Your task to perform on an android device: turn off notifications settings in the gmail app Image 0: 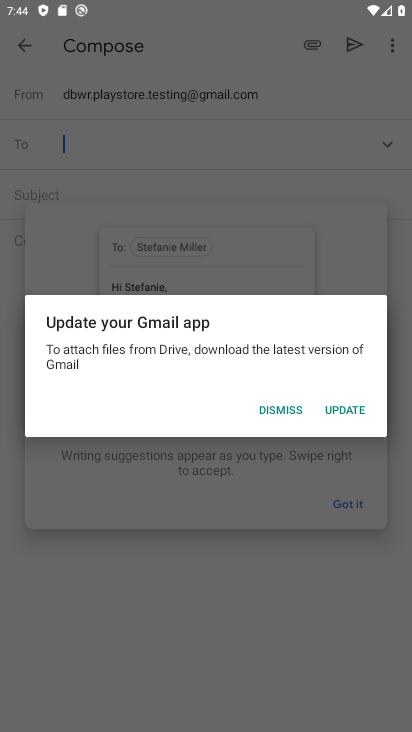
Step 0: click (273, 406)
Your task to perform on an android device: turn off notifications settings in the gmail app Image 1: 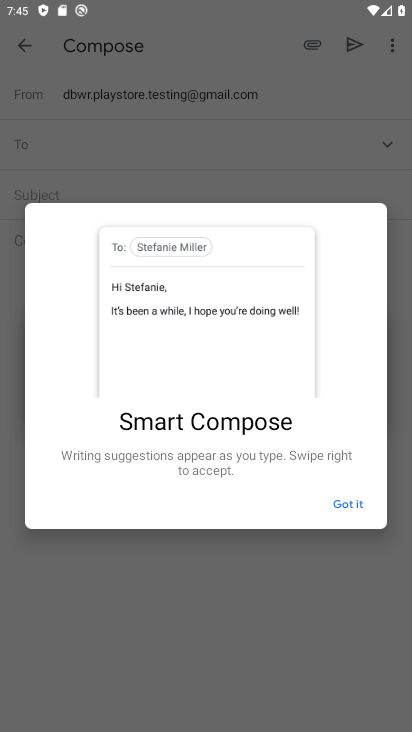
Step 1: click (353, 499)
Your task to perform on an android device: turn off notifications settings in the gmail app Image 2: 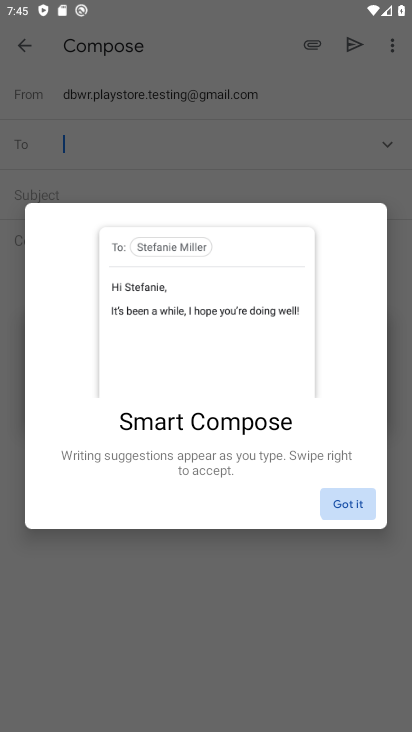
Step 2: click (354, 499)
Your task to perform on an android device: turn off notifications settings in the gmail app Image 3: 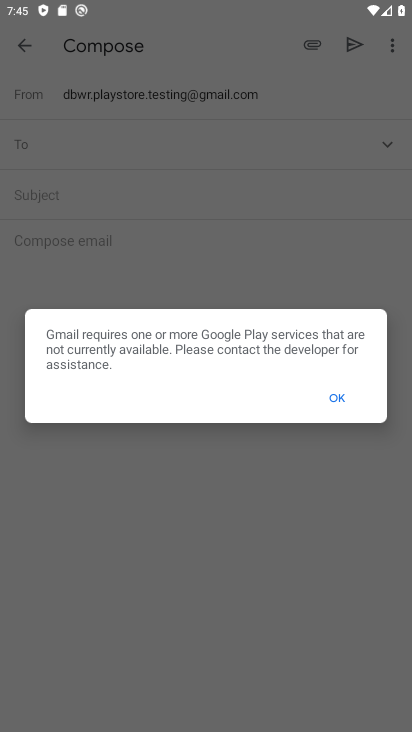
Step 3: click (364, 522)
Your task to perform on an android device: turn off notifications settings in the gmail app Image 4: 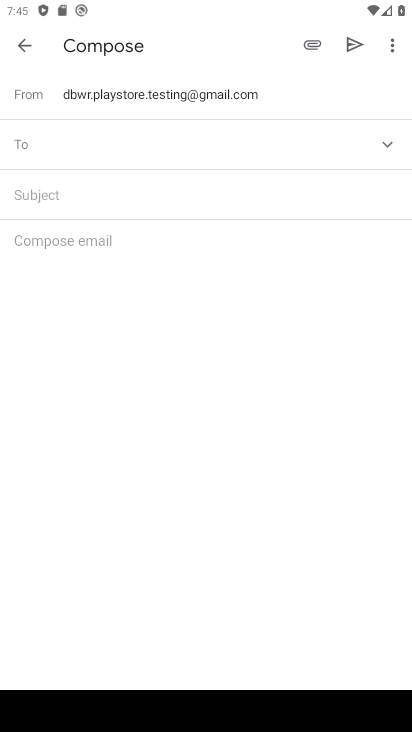
Step 4: click (29, 40)
Your task to perform on an android device: turn off notifications settings in the gmail app Image 5: 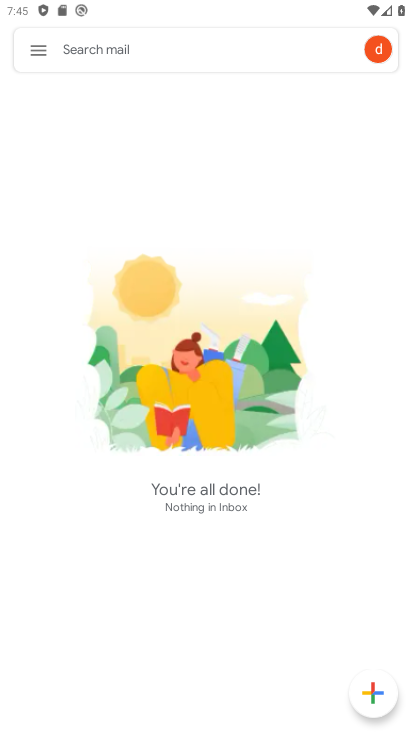
Step 5: click (40, 46)
Your task to perform on an android device: turn off notifications settings in the gmail app Image 6: 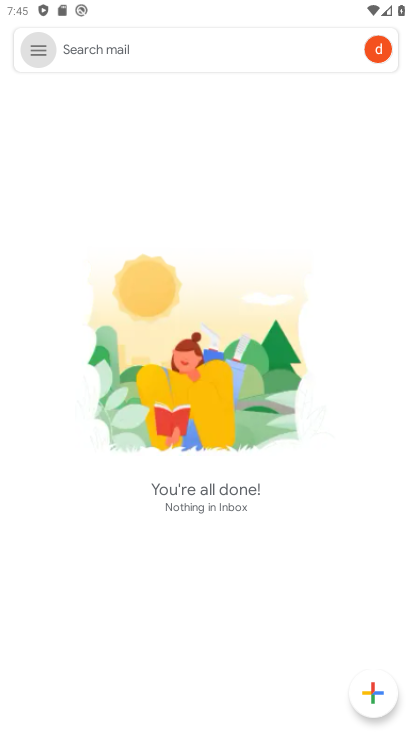
Step 6: click (38, 49)
Your task to perform on an android device: turn off notifications settings in the gmail app Image 7: 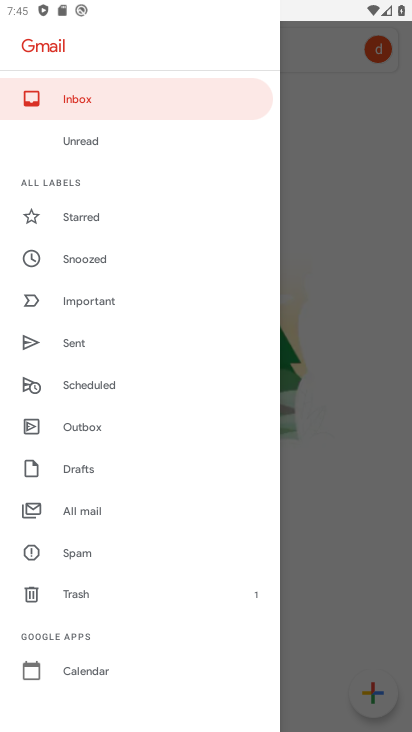
Step 7: drag from (90, 584) to (86, 81)
Your task to perform on an android device: turn off notifications settings in the gmail app Image 8: 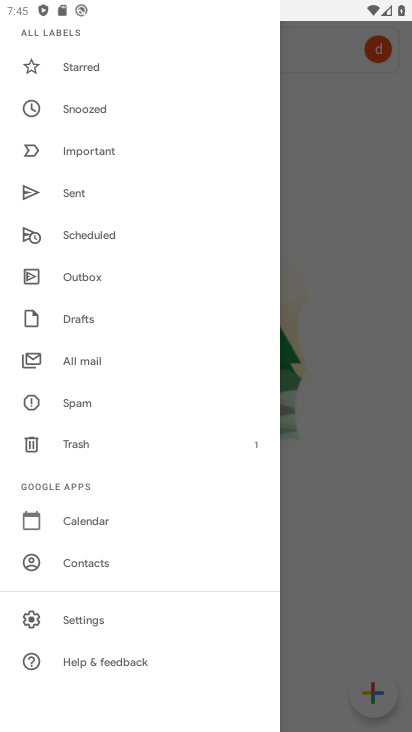
Step 8: click (99, 614)
Your task to perform on an android device: turn off notifications settings in the gmail app Image 9: 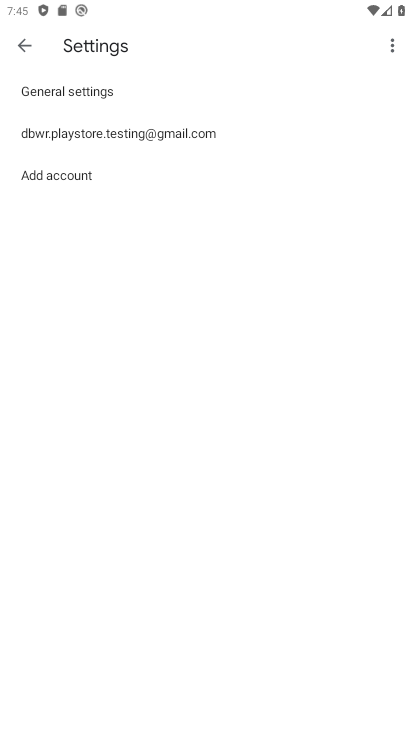
Step 9: click (102, 130)
Your task to perform on an android device: turn off notifications settings in the gmail app Image 10: 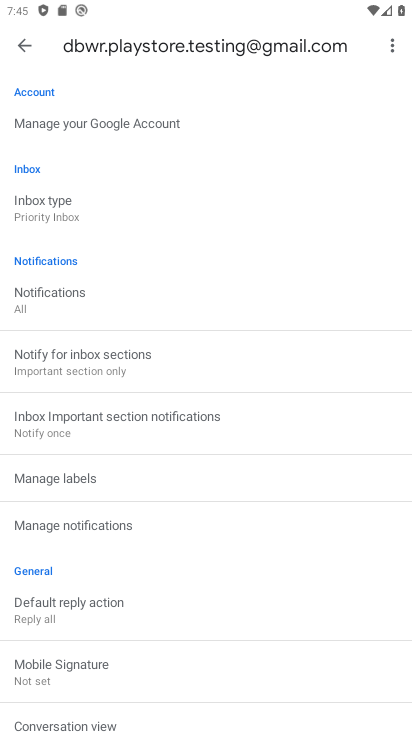
Step 10: click (51, 291)
Your task to perform on an android device: turn off notifications settings in the gmail app Image 11: 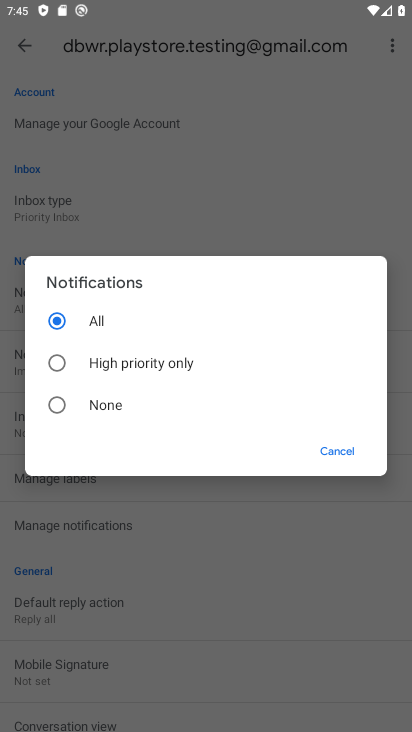
Step 11: click (54, 409)
Your task to perform on an android device: turn off notifications settings in the gmail app Image 12: 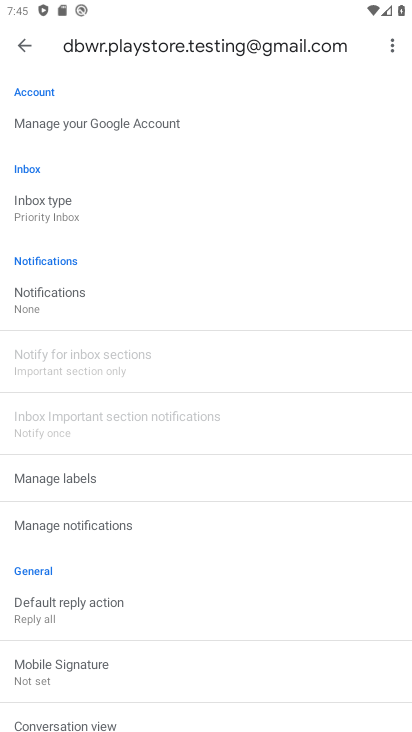
Step 12: task complete